Your task to perform on an android device: Search for dining room chairs on Crate & Barrel Image 0: 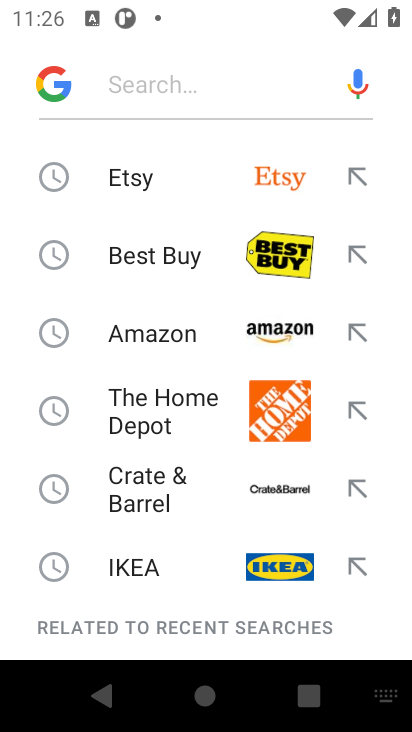
Step 0: click (154, 471)
Your task to perform on an android device: Search for dining room chairs on Crate & Barrel Image 1: 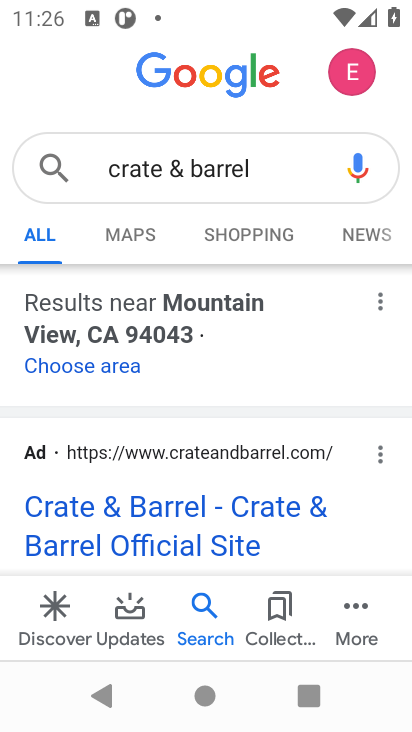
Step 1: click (233, 525)
Your task to perform on an android device: Search for dining room chairs on Crate & Barrel Image 2: 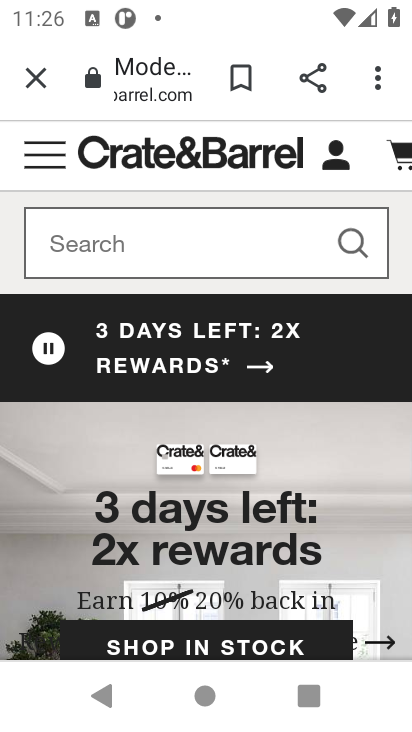
Step 2: click (253, 240)
Your task to perform on an android device: Search for dining room chairs on Crate & Barrel Image 3: 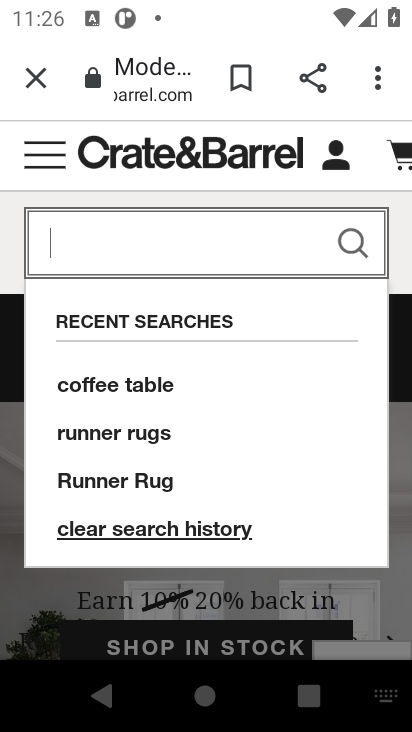
Step 3: type "dining room chairs"
Your task to perform on an android device: Search for dining room chairs on Crate & Barrel Image 4: 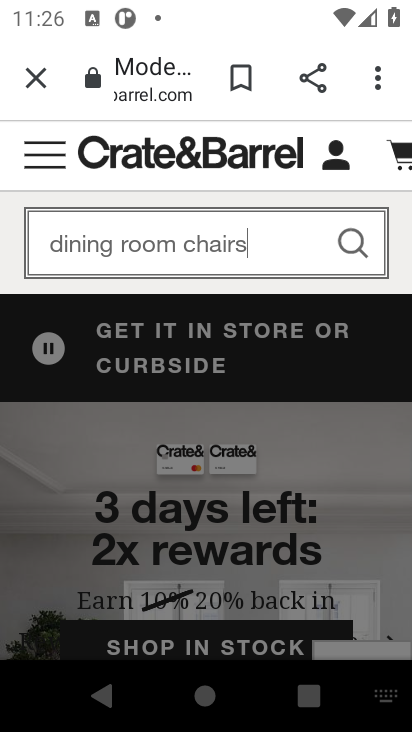
Step 4: type ""
Your task to perform on an android device: Search for dining room chairs on Crate & Barrel Image 5: 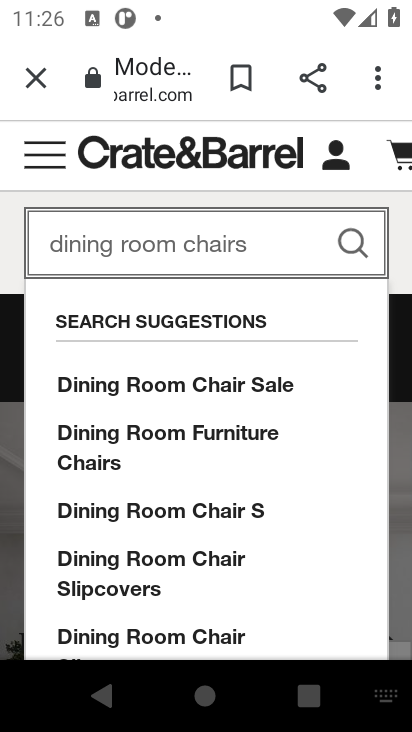
Step 5: click (360, 249)
Your task to perform on an android device: Search for dining room chairs on Crate & Barrel Image 6: 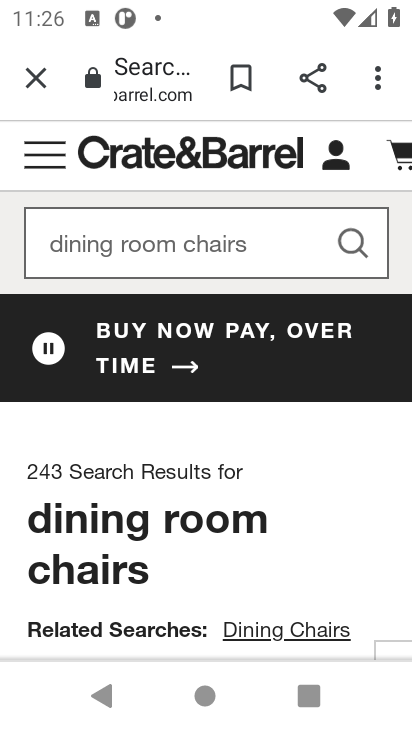
Step 6: task complete